Your task to perform on an android device: Empty the shopping cart on amazon. Search for corsair k70 on amazon, select the first entry, add it to the cart, then select checkout. Image 0: 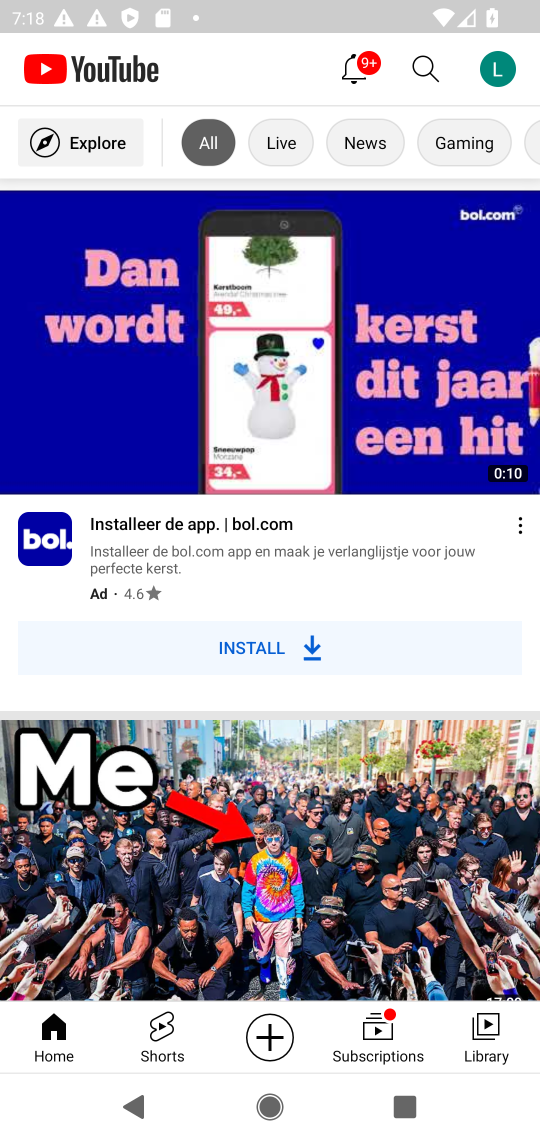
Step 0: press home button
Your task to perform on an android device: Empty the shopping cart on amazon. Search for corsair k70 on amazon, select the first entry, add it to the cart, then select checkout. Image 1: 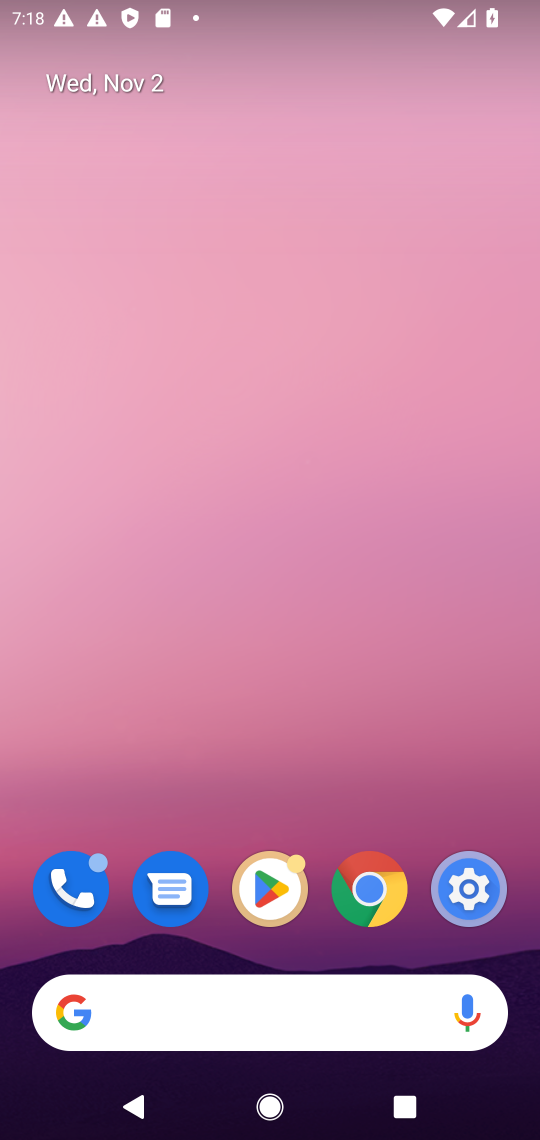
Step 1: drag from (347, 788) to (376, 385)
Your task to perform on an android device: Empty the shopping cart on amazon. Search for corsair k70 on amazon, select the first entry, add it to the cart, then select checkout. Image 2: 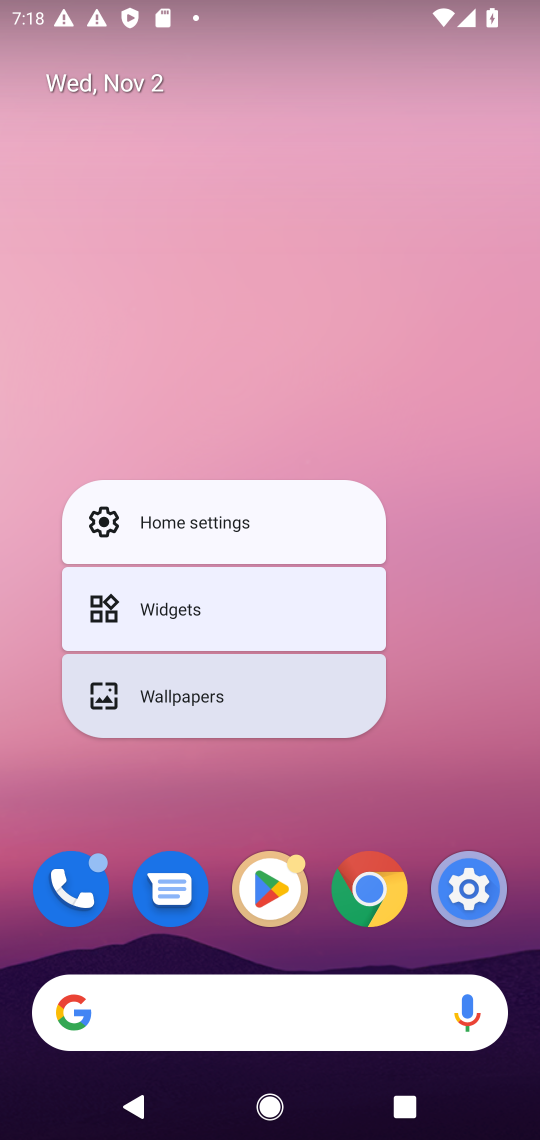
Step 2: drag from (426, 722) to (375, 3)
Your task to perform on an android device: Empty the shopping cart on amazon. Search for corsair k70 on amazon, select the first entry, add it to the cart, then select checkout. Image 3: 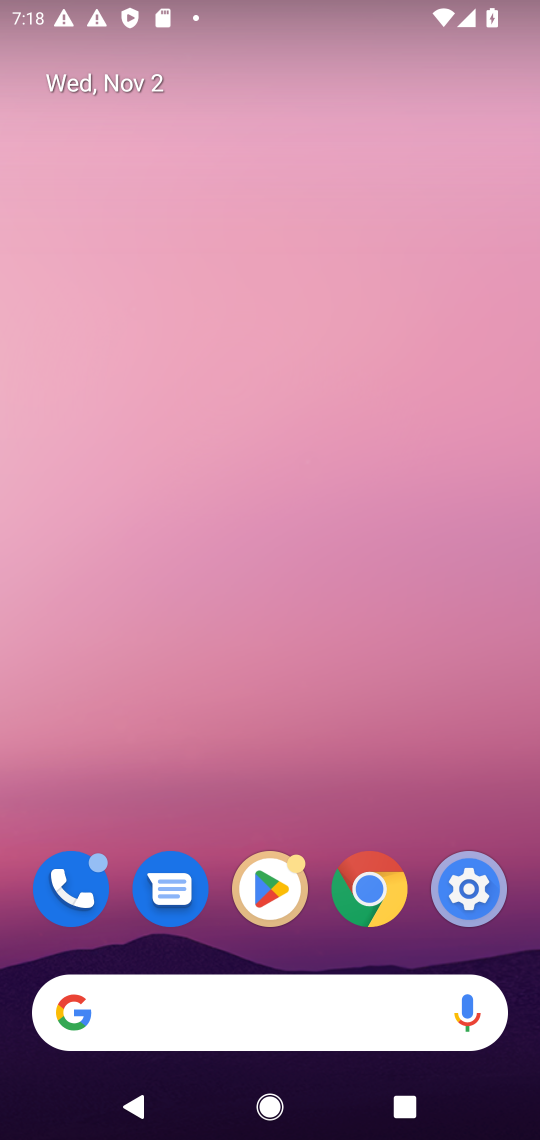
Step 3: drag from (326, 765) to (393, 0)
Your task to perform on an android device: Empty the shopping cart on amazon. Search for corsair k70 on amazon, select the first entry, add it to the cart, then select checkout. Image 4: 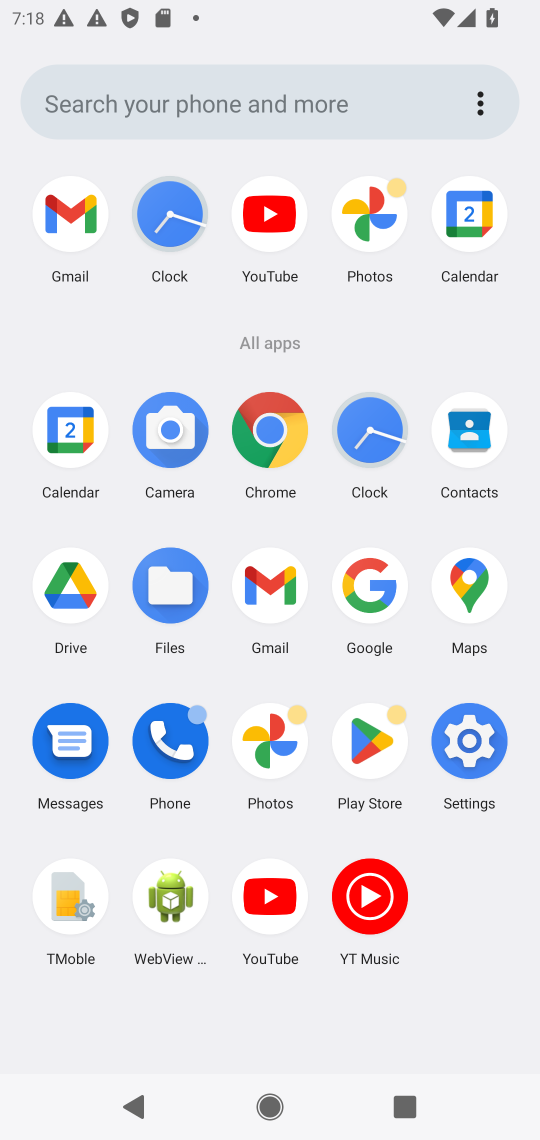
Step 4: click (263, 430)
Your task to perform on an android device: Empty the shopping cart on amazon. Search for corsair k70 on amazon, select the first entry, add it to the cart, then select checkout. Image 5: 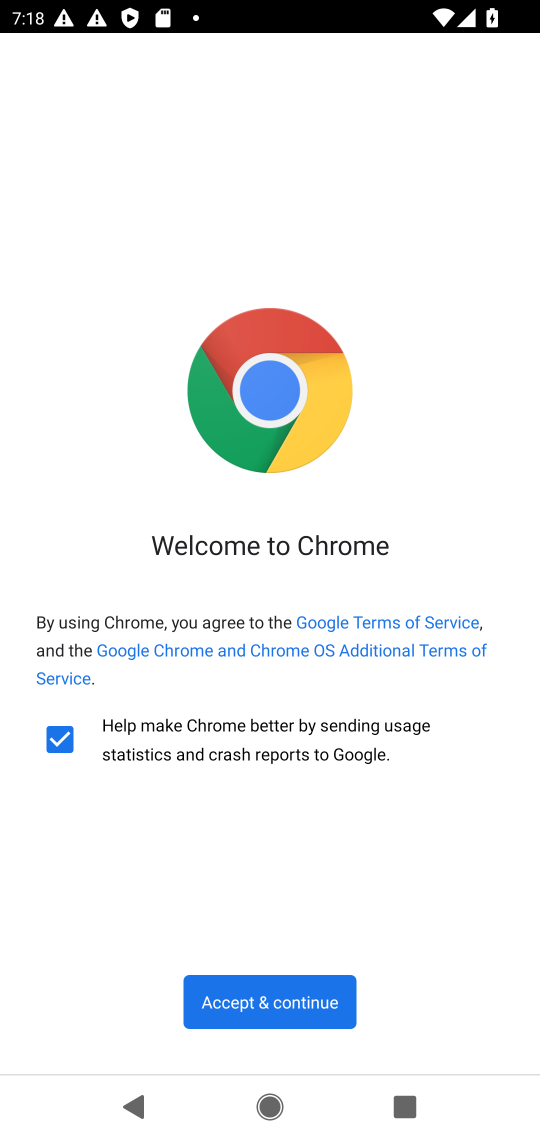
Step 5: click (265, 996)
Your task to perform on an android device: Empty the shopping cart on amazon. Search for corsair k70 on amazon, select the first entry, add it to the cart, then select checkout. Image 6: 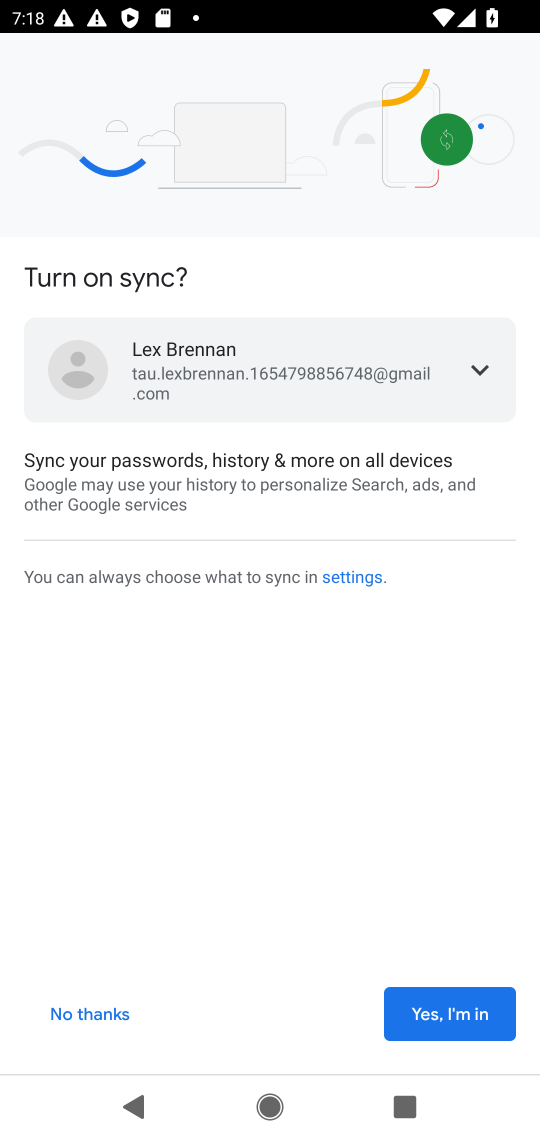
Step 6: click (450, 1012)
Your task to perform on an android device: Empty the shopping cart on amazon. Search for corsair k70 on amazon, select the first entry, add it to the cart, then select checkout. Image 7: 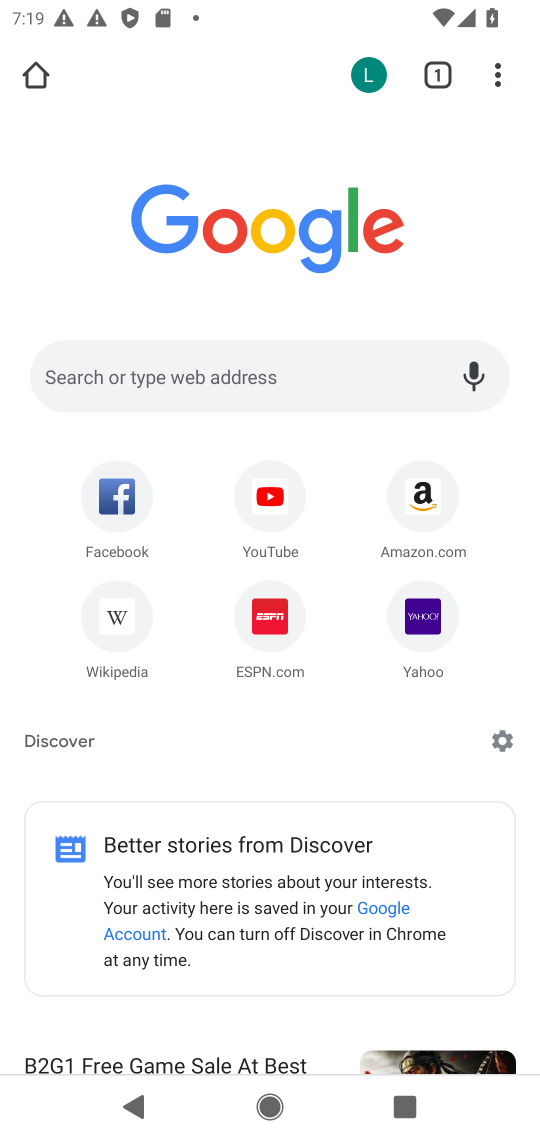
Step 7: click (122, 376)
Your task to perform on an android device: Empty the shopping cart on amazon. Search for corsair k70 on amazon, select the first entry, add it to the cart, then select checkout. Image 8: 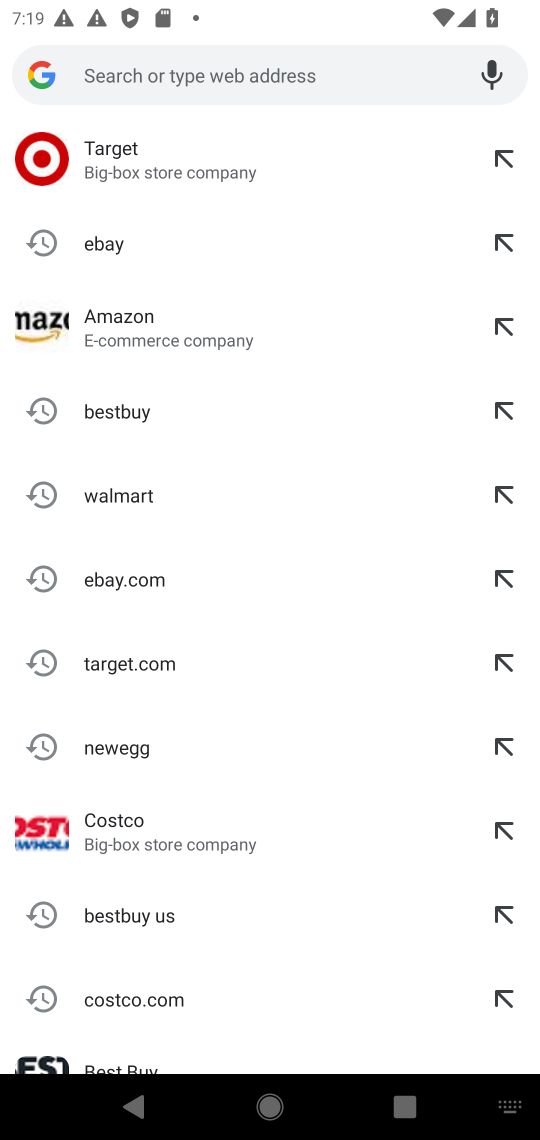
Step 8: type "amazon"
Your task to perform on an android device: Empty the shopping cart on amazon. Search for corsair k70 on amazon, select the first entry, add it to the cart, then select checkout. Image 9: 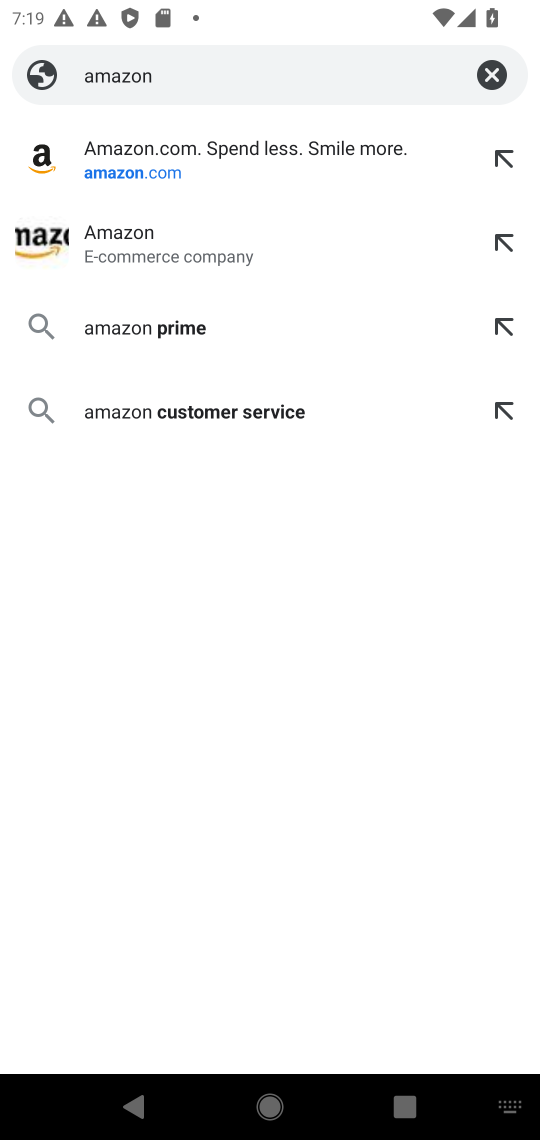
Step 9: click (163, 154)
Your task to perform on an android device: Empty the shopping cart on amazon. Search for corsair k70 on amazon, select the first entry, add it to the cart, then select checkout. Image 10: 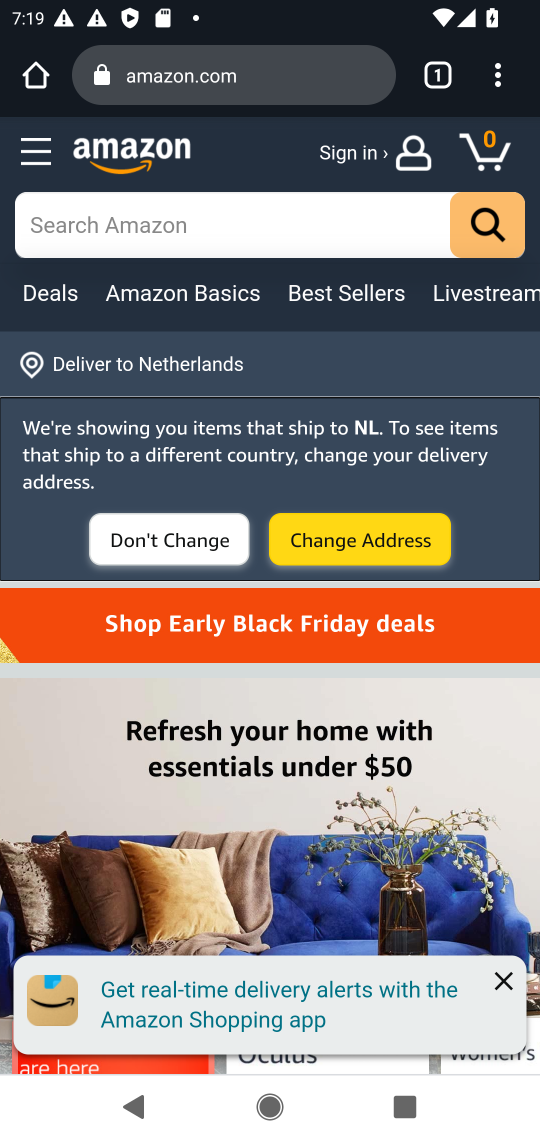
Step 10: click (150, 234)
Your task to perform on an android device: Empty the shopping cart on amazon. Search for corsair k70 on amazon, select the first entry, add it to the cart, then select checkout. Image 11: 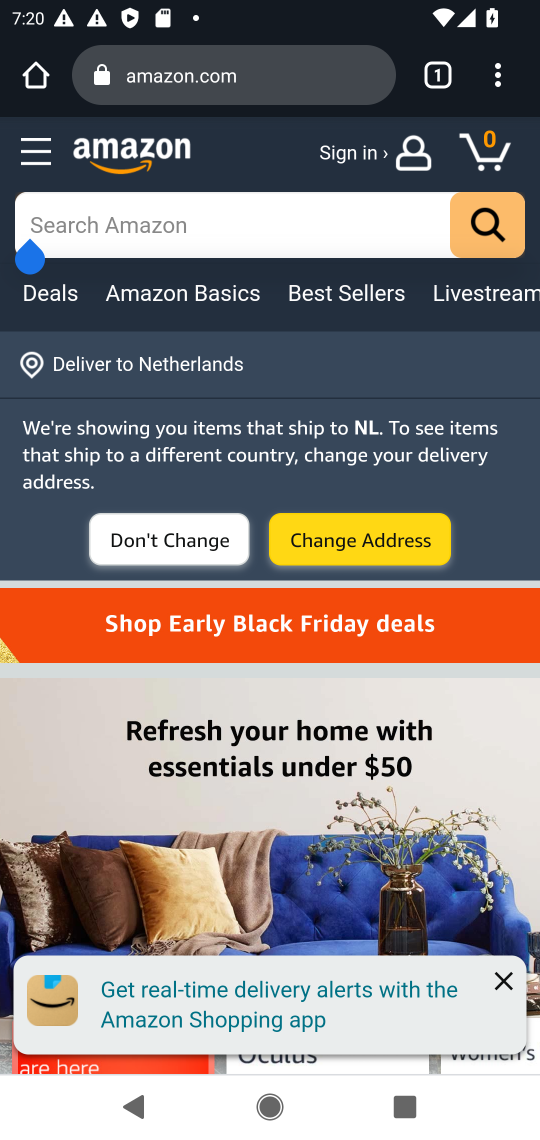
Step 11: type "corsair k70"
Your task to perform on an android device: Empty the shopping cart on amazon. Search for corsair k70 on amazon, select the first entry, add it to the cart, then select checkout. Image 12: 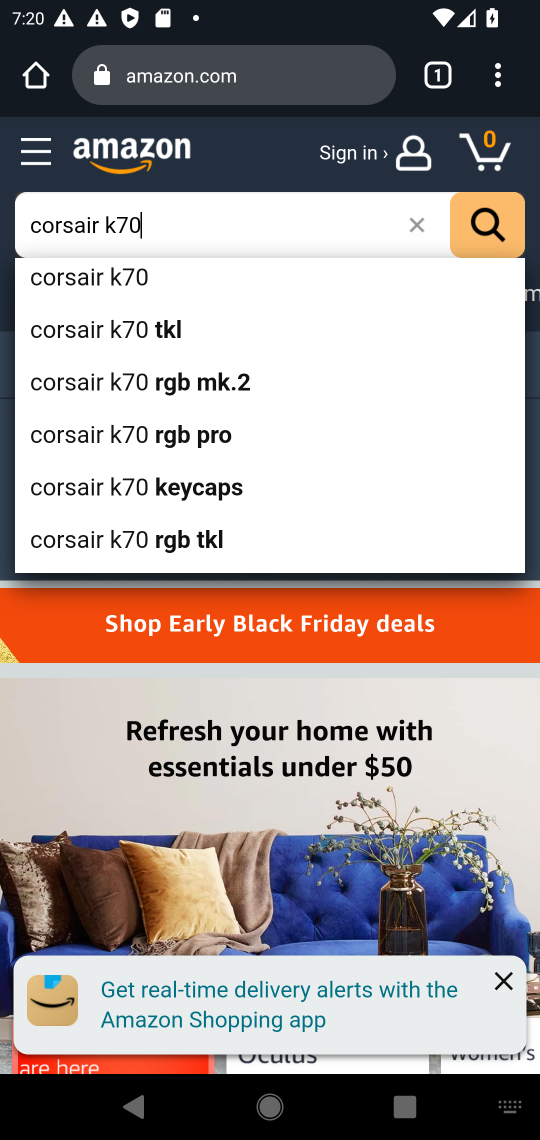
Step 12: click (145, 276)
Your task to perform on an android device: Empty the shopping cart on amazon. Search for corsair k70 on amazon, select the first entry, add it to the cart, then select checkout. Image 13: 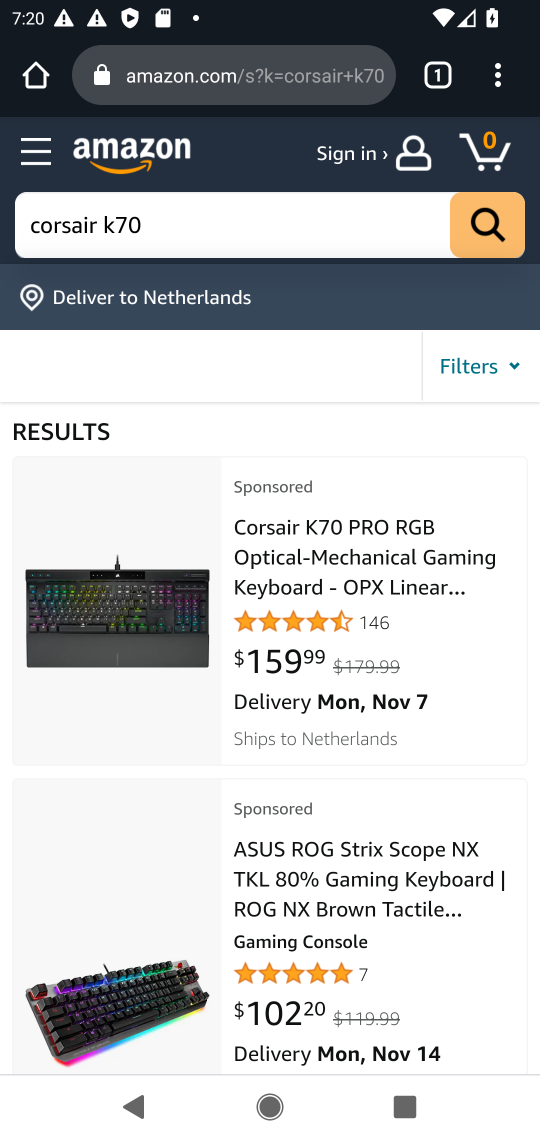
Step 13: click (283, 570)
Your task to perform on an android device: Empty the shopping cart on amazon. Search for corsair k70 on amazon, select the first entry, add it to the cart, then select checkout. Image 14: 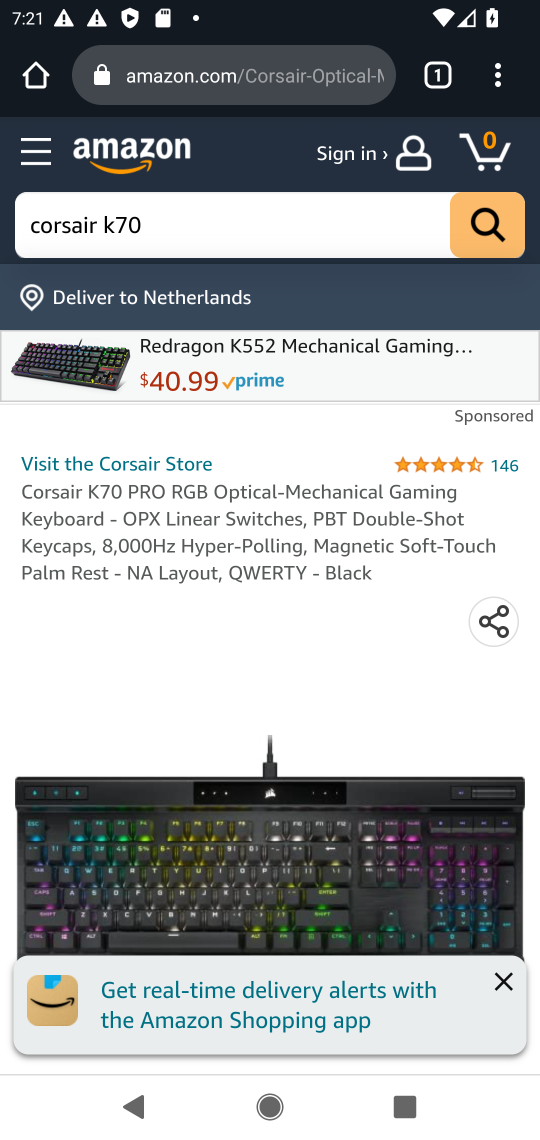
Step 14: drag from (348, 735) to (328, 193)
Your task to perform on an android device: Empty the shopping cart on amazon. Search for corsair k70 on amazon, select the first entry, add it to the cart, then select checkout. Image 15: 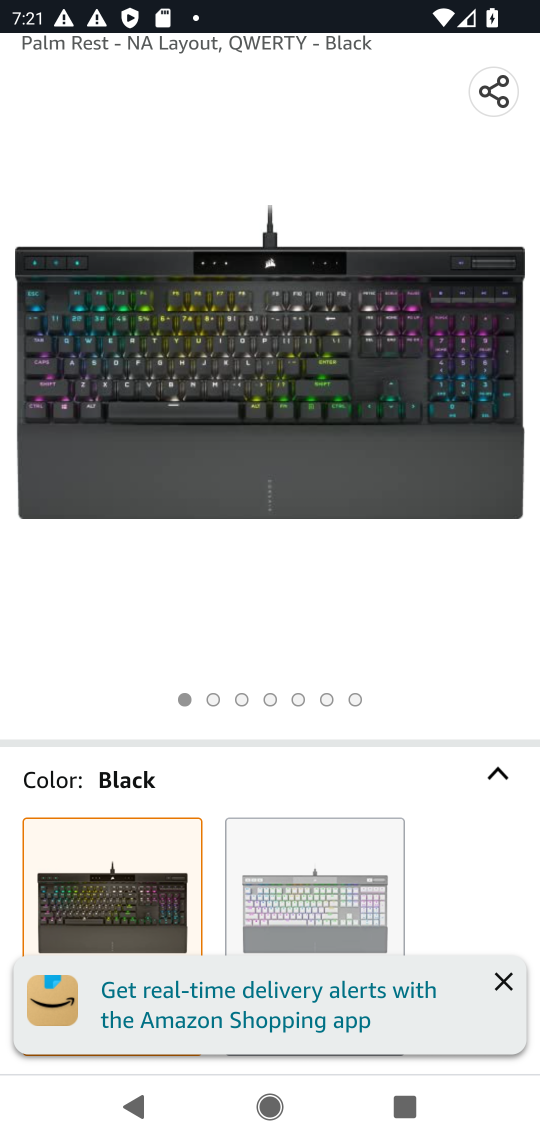
Step 15: drag from (334, 769) to (339, 153)
Your task to perform on an android device: Empty the shopping cart on amazon. Search for corsair k70 on amazon, select the first entry, add it to the cart, then select checkout. Image 16: 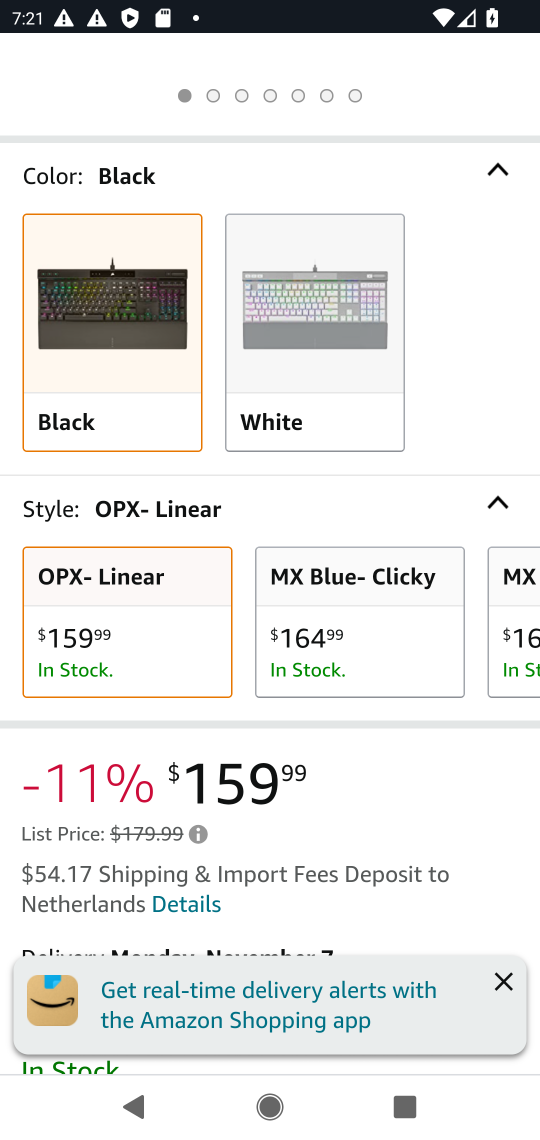
Step 16: drag from (302, 847) to (355, 380)
Your task to perform on an android device: Empty the shopping cart on amazon. Search for corsair k70 on amazon, select the first entry, add it to the cart, then select checkout. Image 17: 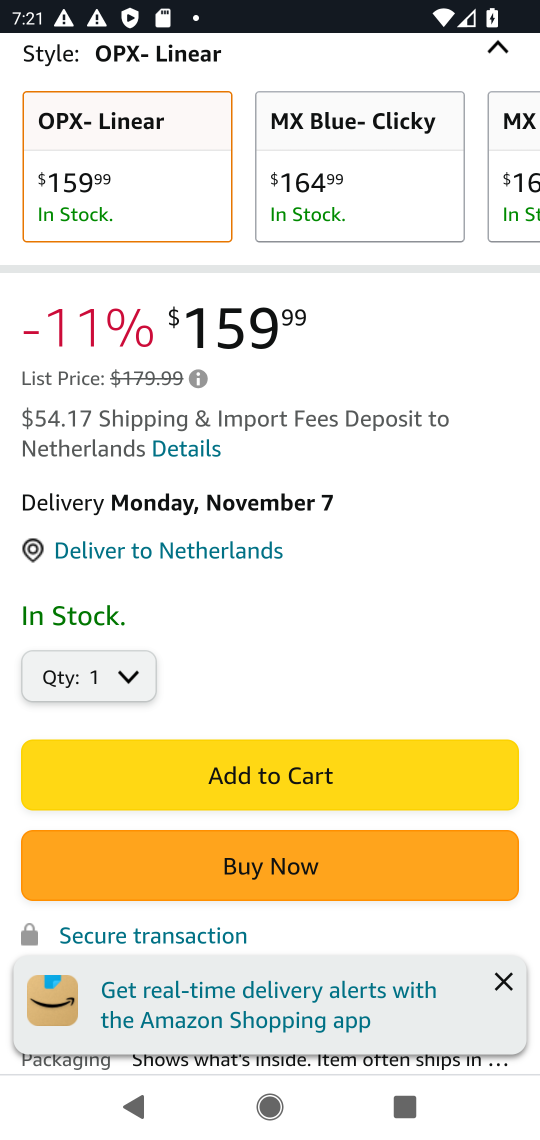
Step 17: click (266, 765)
Your task to perform on an android device: Empty the shopping cart on amazon. Search for corsair k70 on amazon, select the first entry, add it to the cart, then select checkout. Image 18: 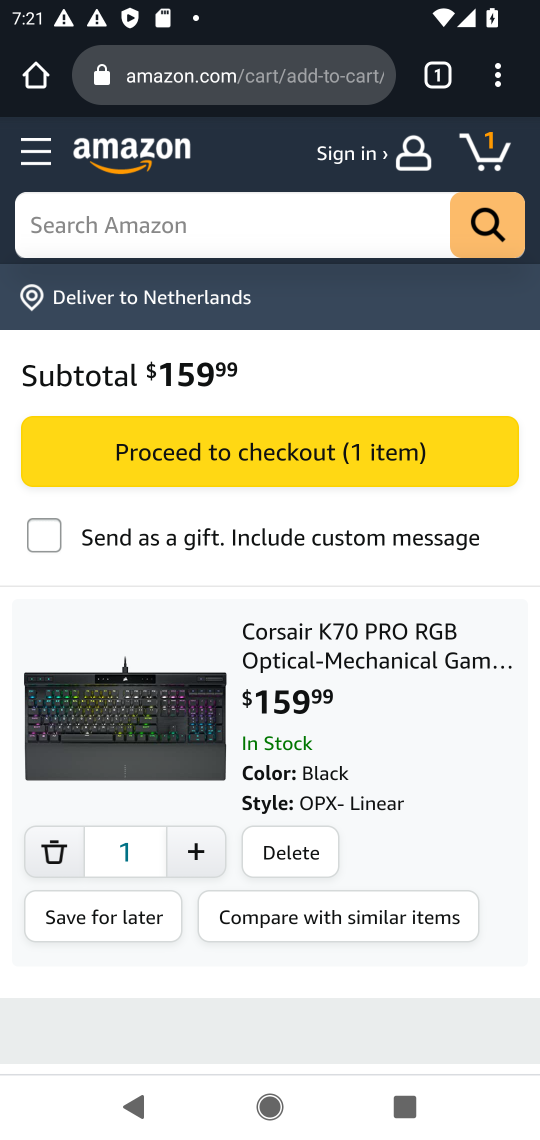
Step 18: click (259, 449)
Your task to perform on an android device: Empty the shopping cart on amazon. Search for corsair k70 on amazon, select the first entry, add it to the cart, then select checkout. Image 19: 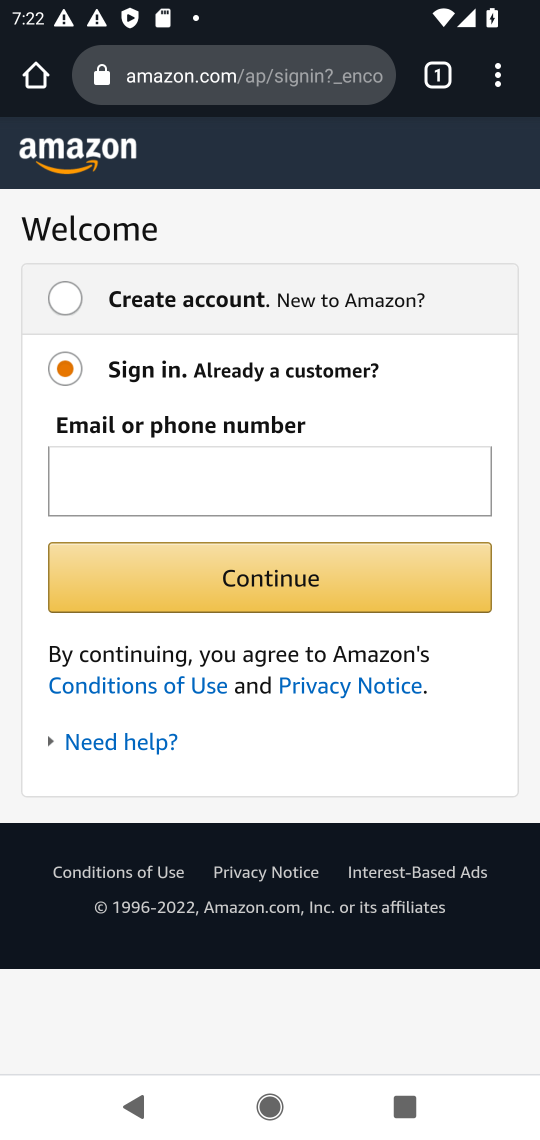
Step 19: task complete